Your task to perform on an android device: Open Google Maps Image 0: 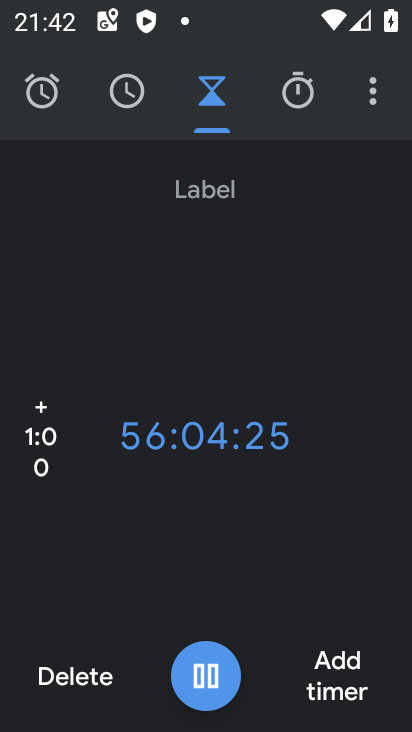
Step 0: press home button
Your task to perform on an android device: Open Google Maps Image 1: 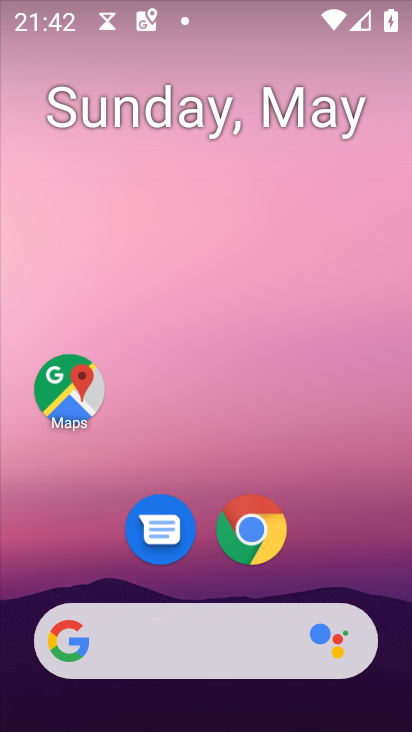
Step 1: drag from (343, 551) to (344, 12)
Your task to perform on an android device: Open Google Maps Image 2: 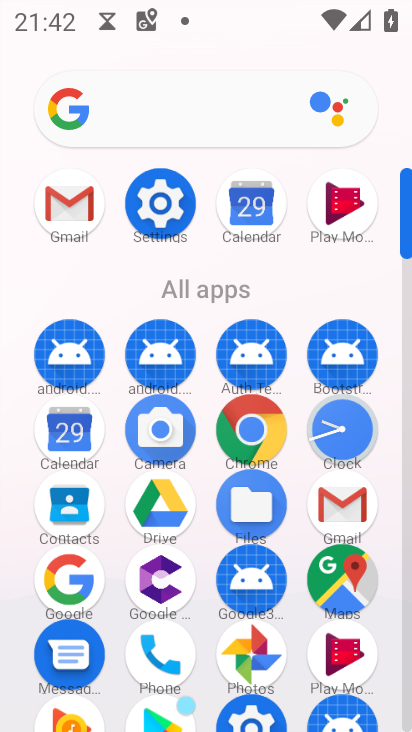
Step 2: click (348, 572)
Your task to perform on an android device: Open Google Maps Image 3: 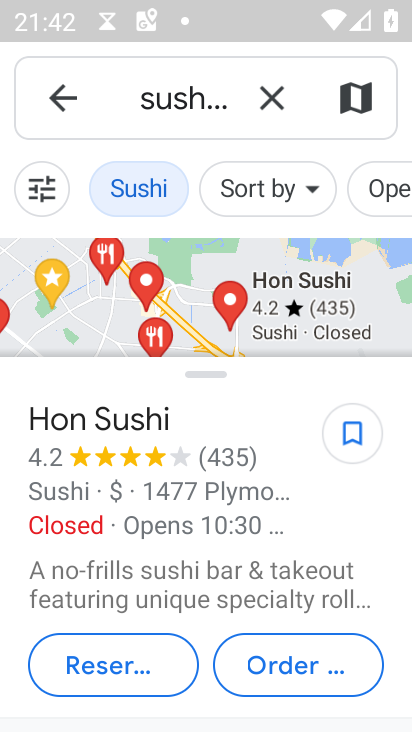
Step 3: click (60, 102)
Your task to perform on an android device: Open Google Maps Image 4: 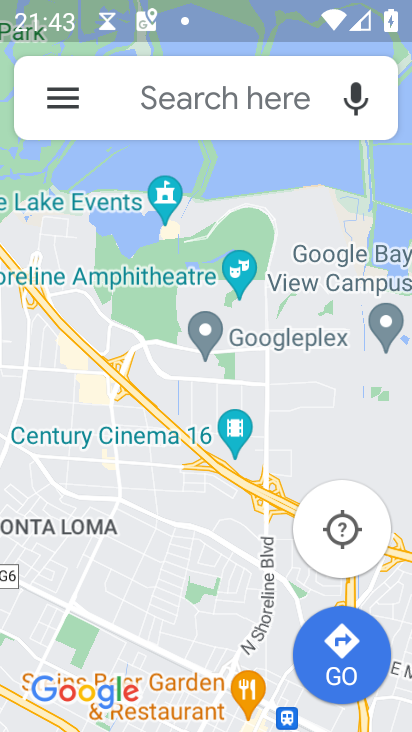
Step 4: task complete